Your task to perform on an android device: What's the weather today? Image 0: 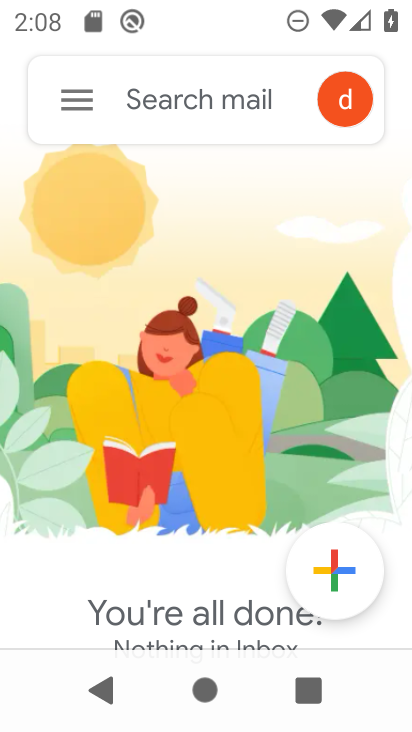
Step 0: press home button
Your task to perform on an android device: What's the weather today? Image 1: 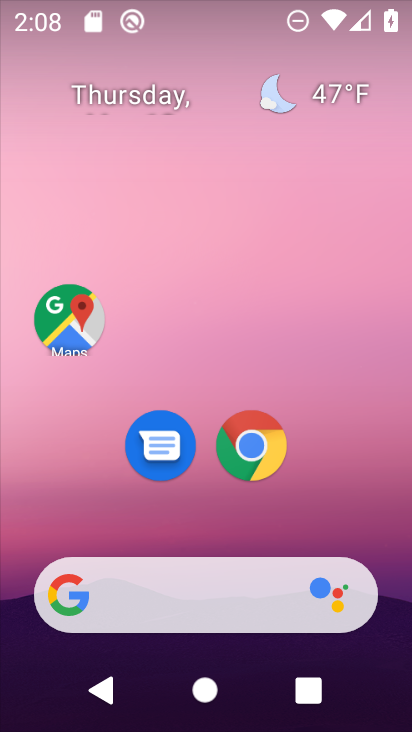
Step 1: drag from (209, 523) to (211, 194)
Your task to perform on an android device: What's the weather today? Image 2: 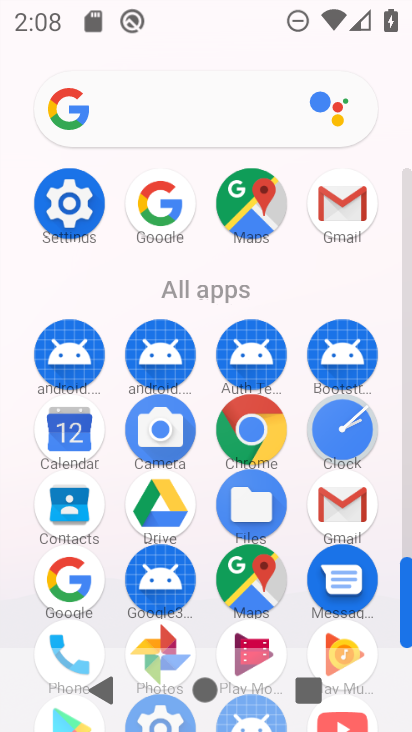
Step 2: click (174, 208)
Your task to perform on an android device: What's the weather today? Image 3: 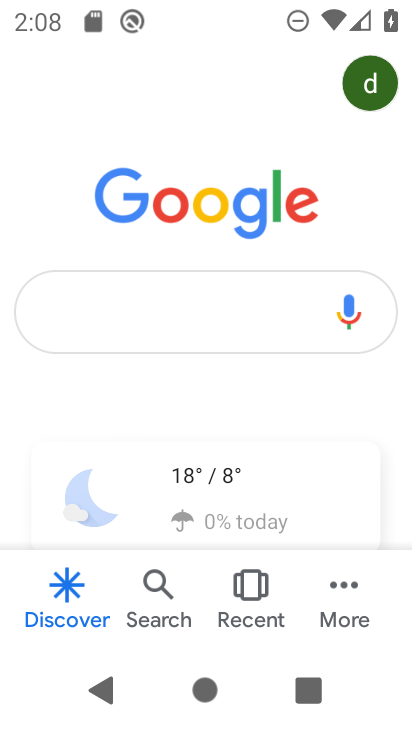
Step 3: drag from (215, 487) to (235, 418)
Your task to perform on an android device: What's the weather today? Image 4: 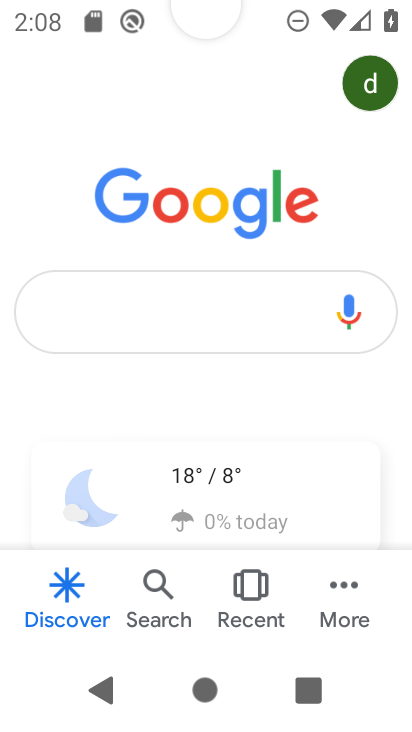
Step 4: drag from (235, 450) to (248, 291)
Your task to perform on an android device: What's the weather today? Image 5: 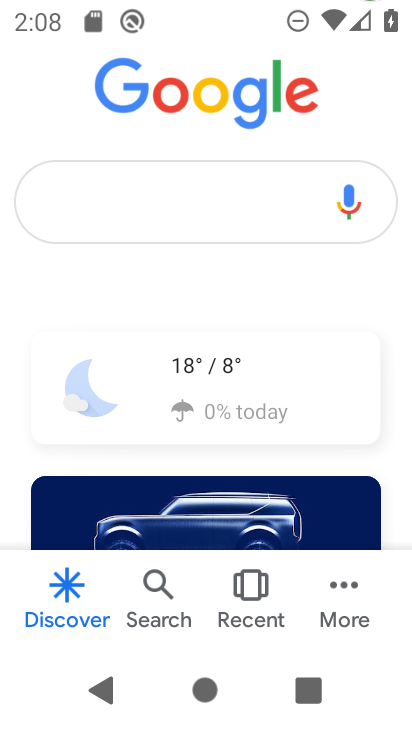
Step 5: click (266, 412)
Your task to perform on an android device: What's the weather today? Image 6: 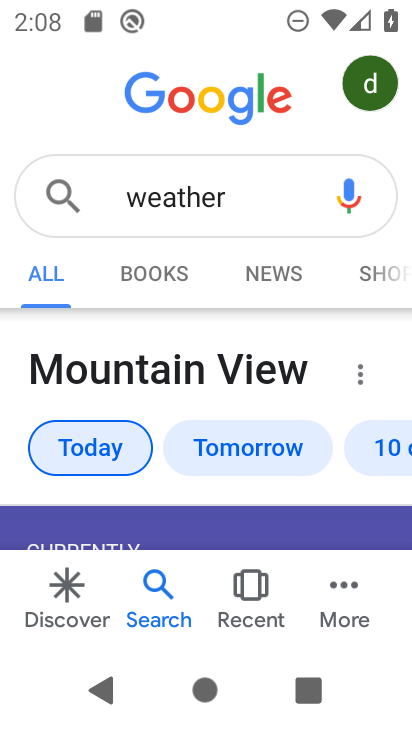
Step 6: task complete